Your task to perform on an android device: set an alarm Image 0: 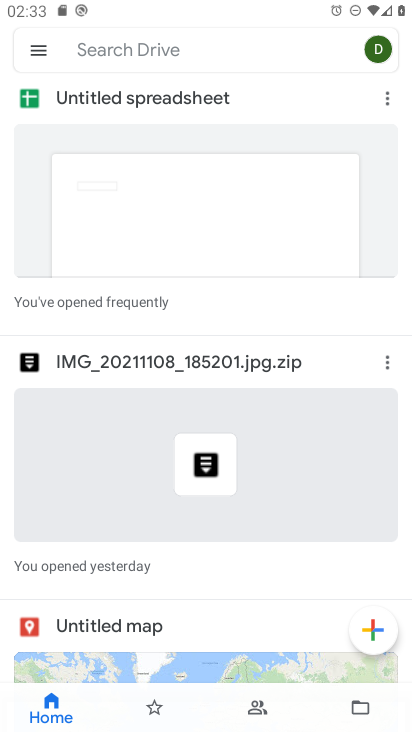
Step 0: press home button
Your task to perform on an android device: set an alarm Image 1: 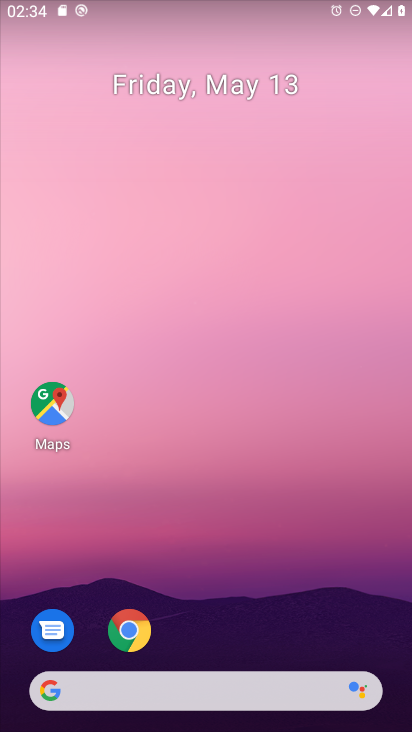
Step 1: drag from (220, 708) to (143, 249)
Your task to perform on an android device: set an alarm Image 2: 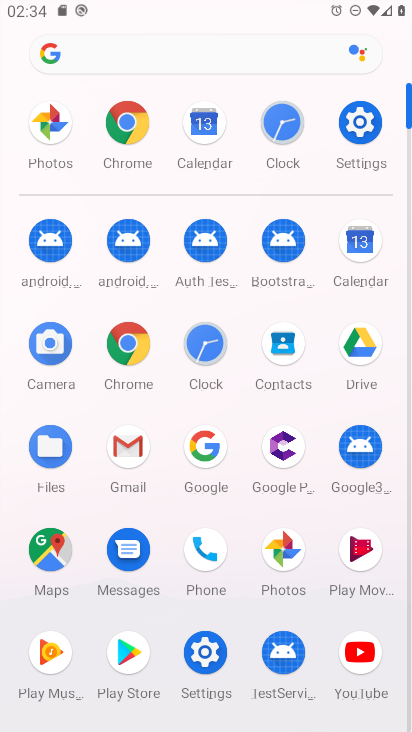
Step 2: click (278, 130)
Your task to perform on an android device: set an alarm Image 3: 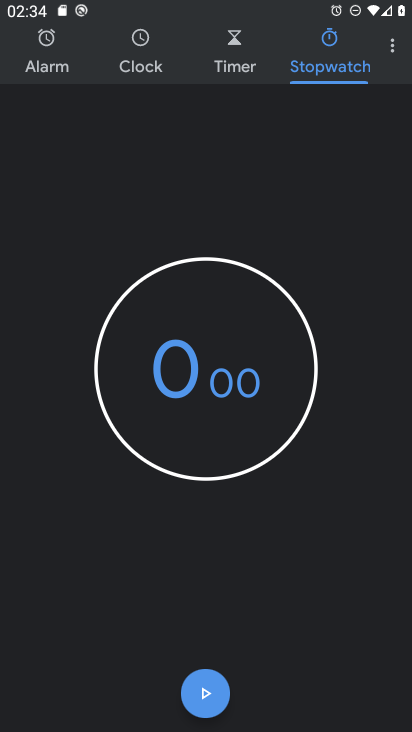
Step 3: click (55, 61)
Your task to perform on an android device: set an alarm Image 4: 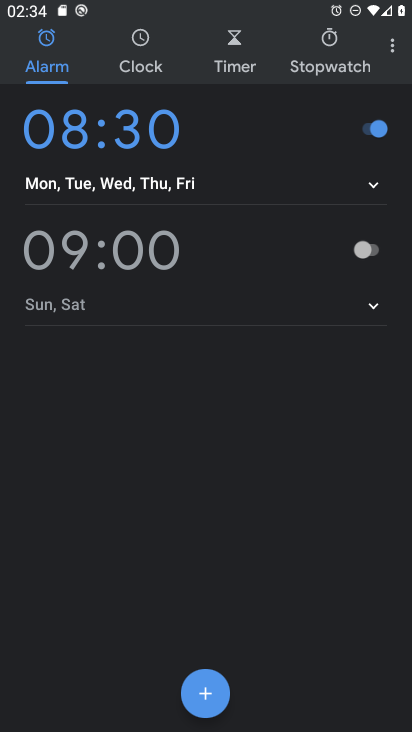
Step 4: click (246, 155)
Your task to perform on an android device: set an alarm Image 5: 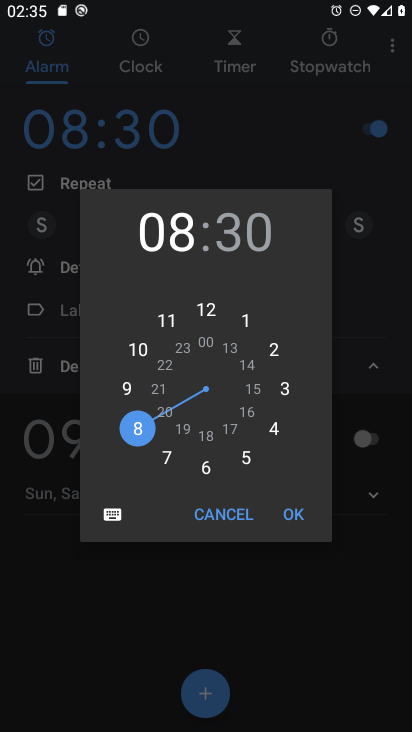
Step 5: click (155, 350)
Your task to perform on an android device: set an alarm Image 6: 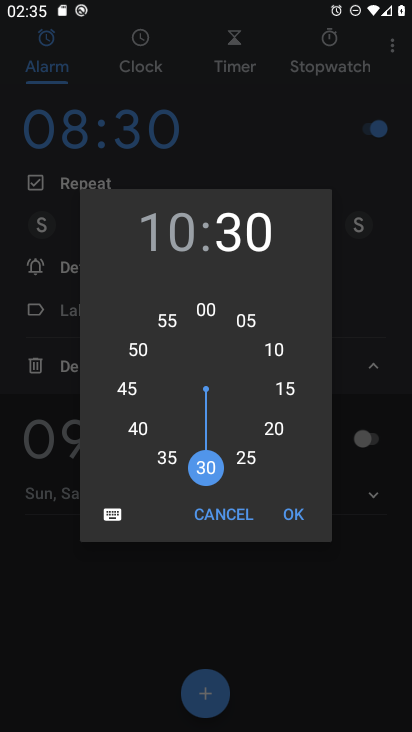
Step 6: click (297, 507)
Your task to perform on an android device: set an alarm Image 7: 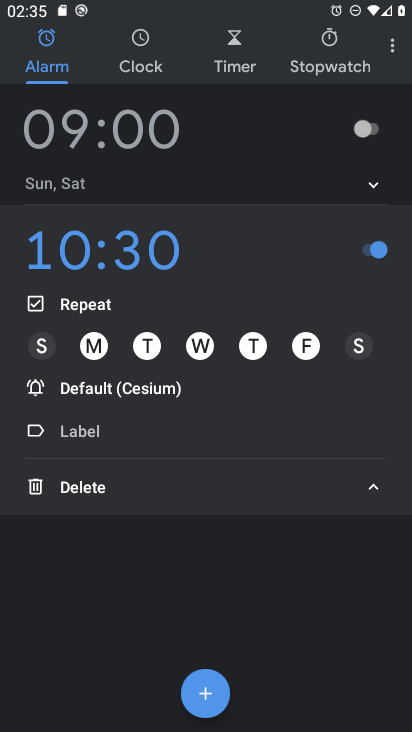
Step 7: task complete